Your task to perform on an android device: Open Google Chrome and click the shortcut for Amazon.com Image 0: 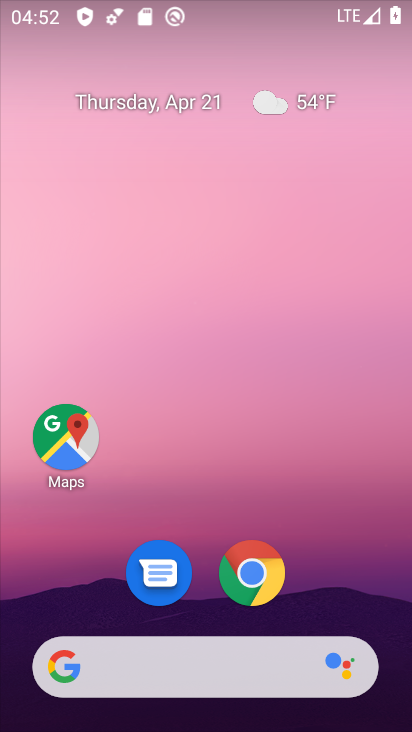
Step 0: click (254, 573)
Your task to perform on an android device: Open Google Chrome and click the shortcut for Amazon.com Image 1: 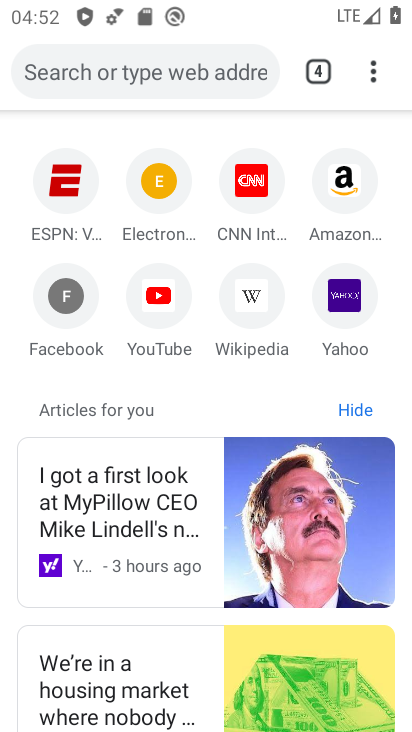
Step 1: click (344, 176)
Your task to perform on an android device: Open Google Chrome and click the shortcut for Amazon.com Image 2: 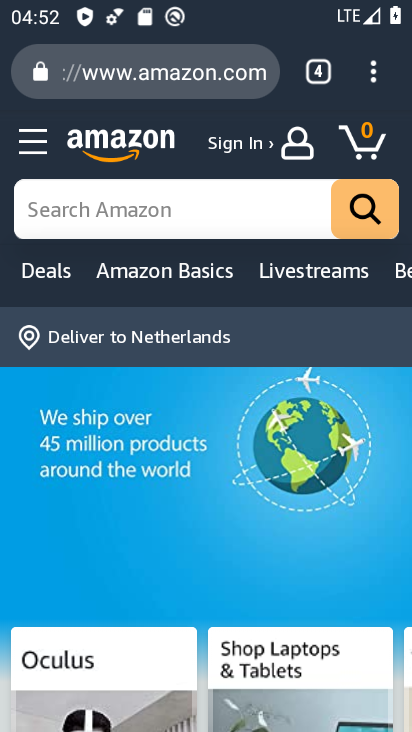
Step 2: task complete